Your task to perform on an android device: Go to sound settings Image 0: 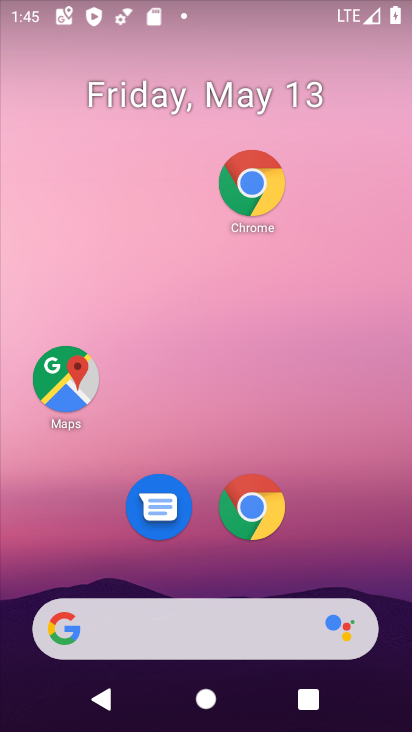
Step 0: drag from (327, 512) to (221, 178)
Your task to perform on an android device: Go to sound settings Image 1: 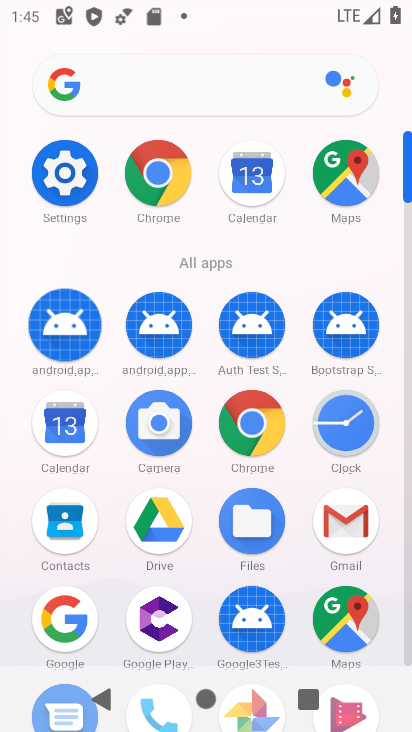
Step 1: click (60, 174)
Your task to perform on an android device: Go to sound settings Image 2: 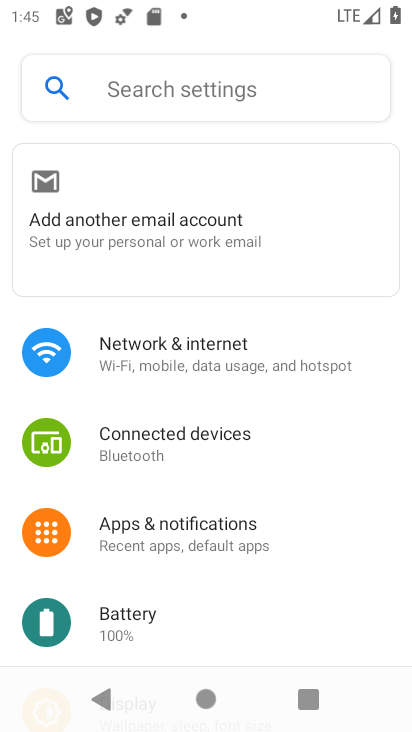
Step 2: drag from (184, 500) to (164, 361)
Your task to perform on an android device: Go to sound settings Image 3: 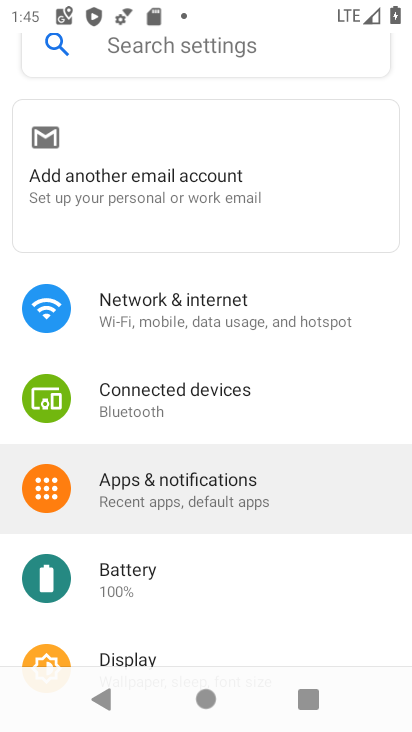
Step 3: drag from (160, 586) to (175, 264)
Your task to perform on an android device: Go to sound settings Image 4: 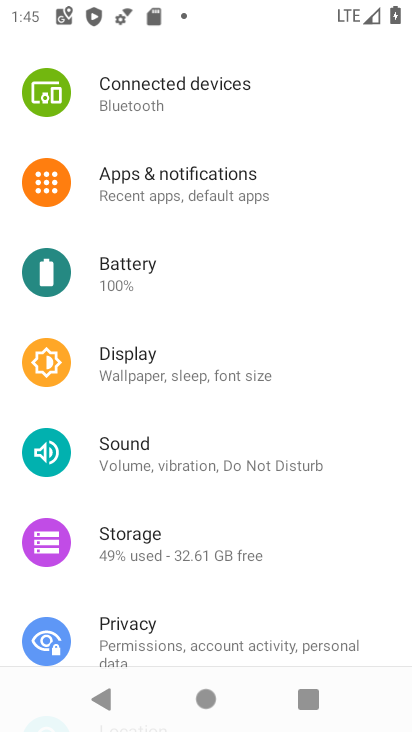
Step 4: drag from (148, 452) to (149, 416)
Your task to perform on an android device: Go to sound settings Image 5: 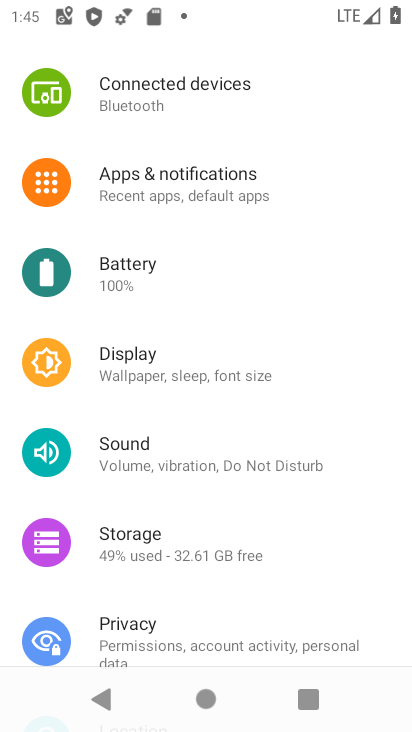
Step 5: click (135, 440)
Your task to perform on an android device: Go to sound settings Image 6: 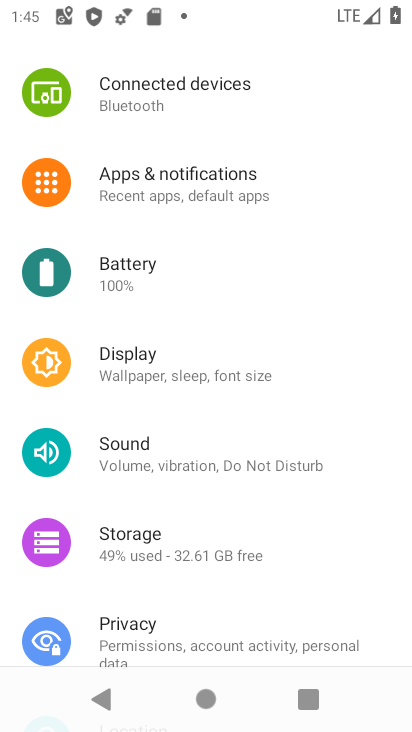
Step 6: click (130, 460)
Your task to perform on an android device: Go to sound settings Image 7: 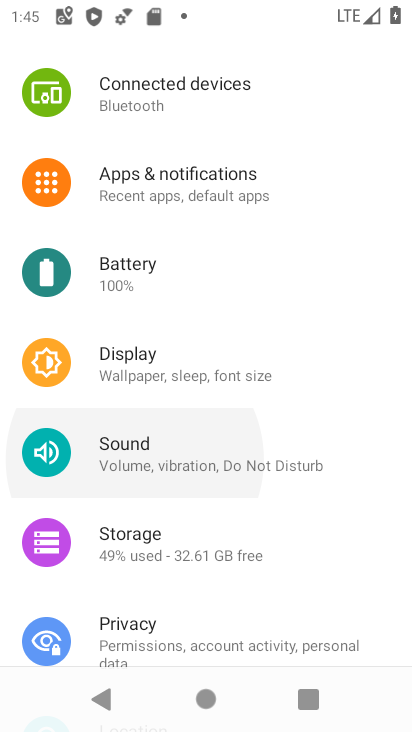
Step 7: click (130, 460)
Your task to perform on an android device: Go to sound settings Image 8: 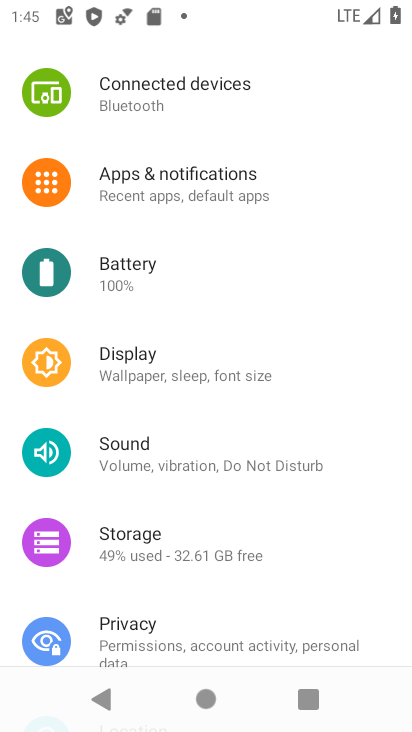
Step 8: click (135, 456)
Your task to perform on an android device: Go to sound settings Image 9: 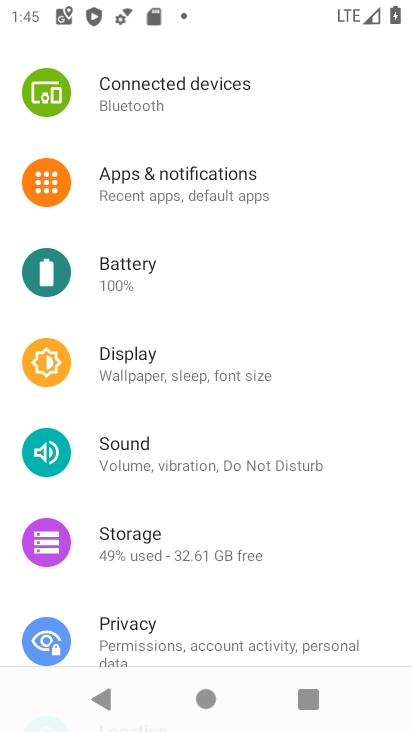
Step 9: click (137, 455)
Your task to perform on an android device: Go to sound settings Image 10: 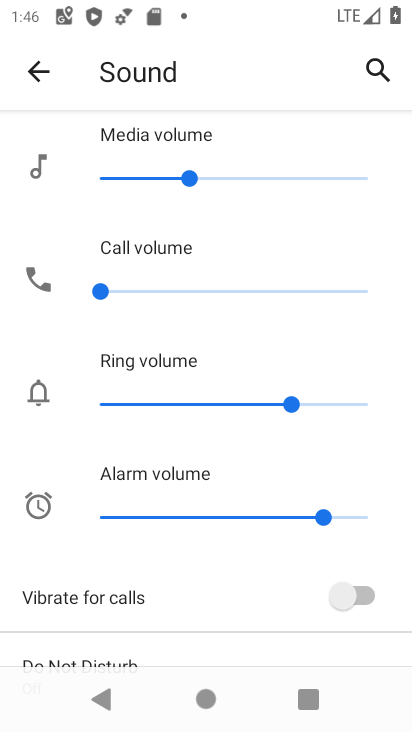
Step 10: task complete